Your task to perform on an android device: Clear the shopping cart on newegg.com. Add "amazon basics triple a" to the cart on newegg.com Image 0: 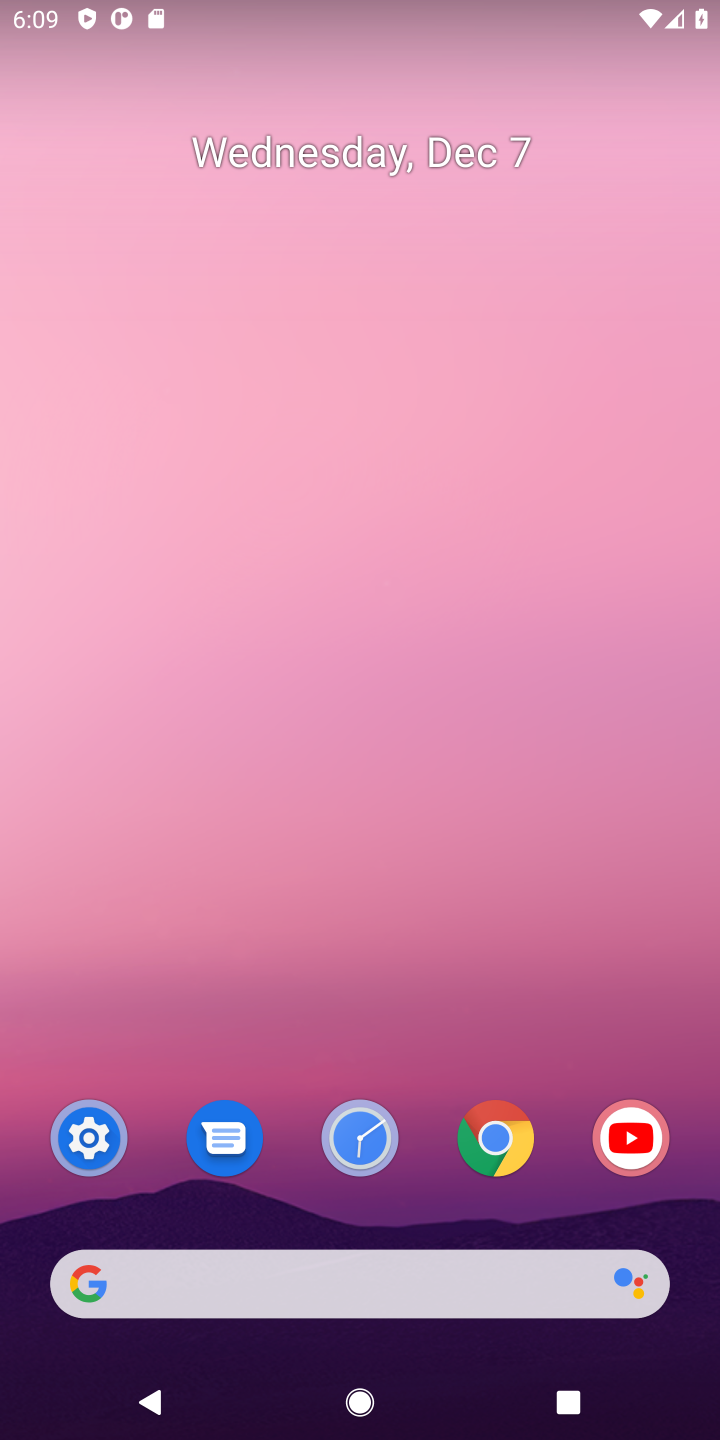
Step 0: press home button
Your task to perform on an android device: Clear the shopping cart on newegg.com. Add "amazon basics triple a" to the cart on newegg.com Image 1: 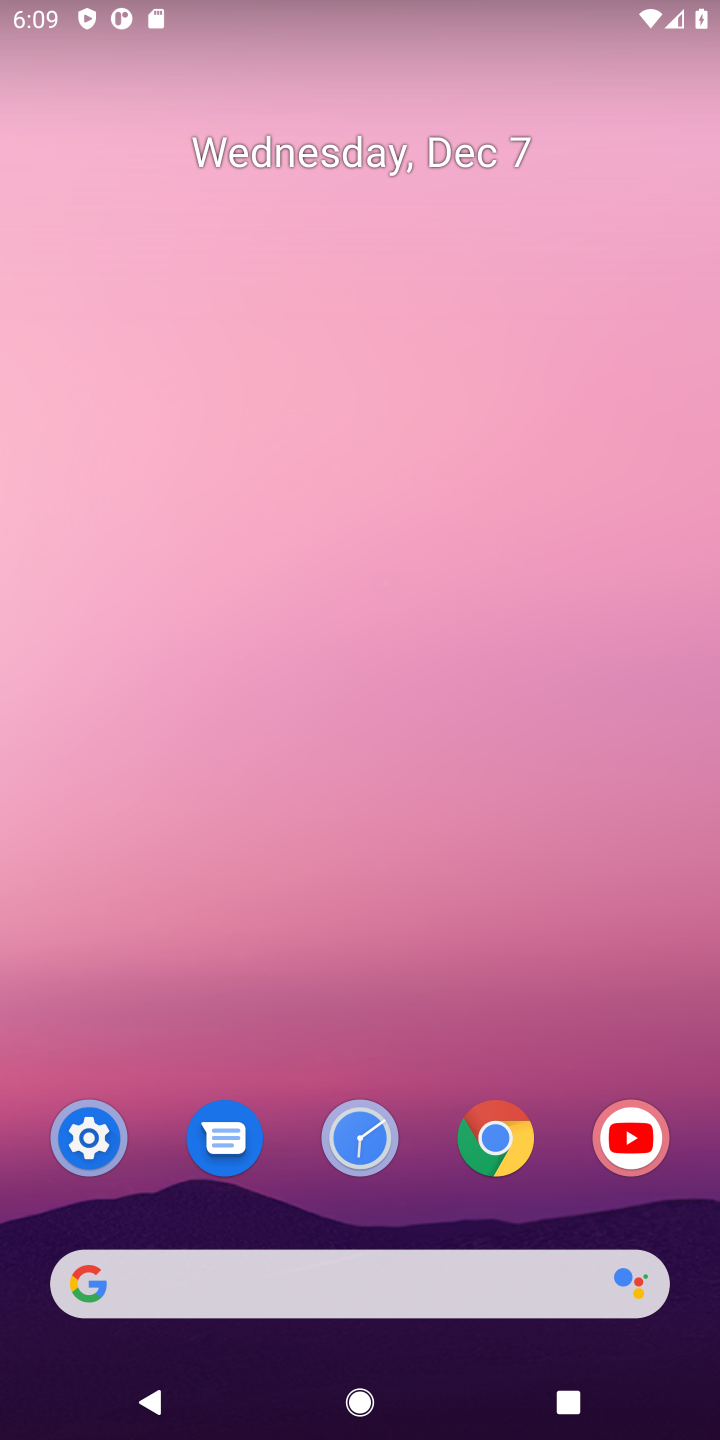
Step 1: click (150, 1288)
Your task to perform on an android device: Clear the shopping cart on newegg.com. Add "amazon basics triple a" to the cart on newegg.com Image 2: 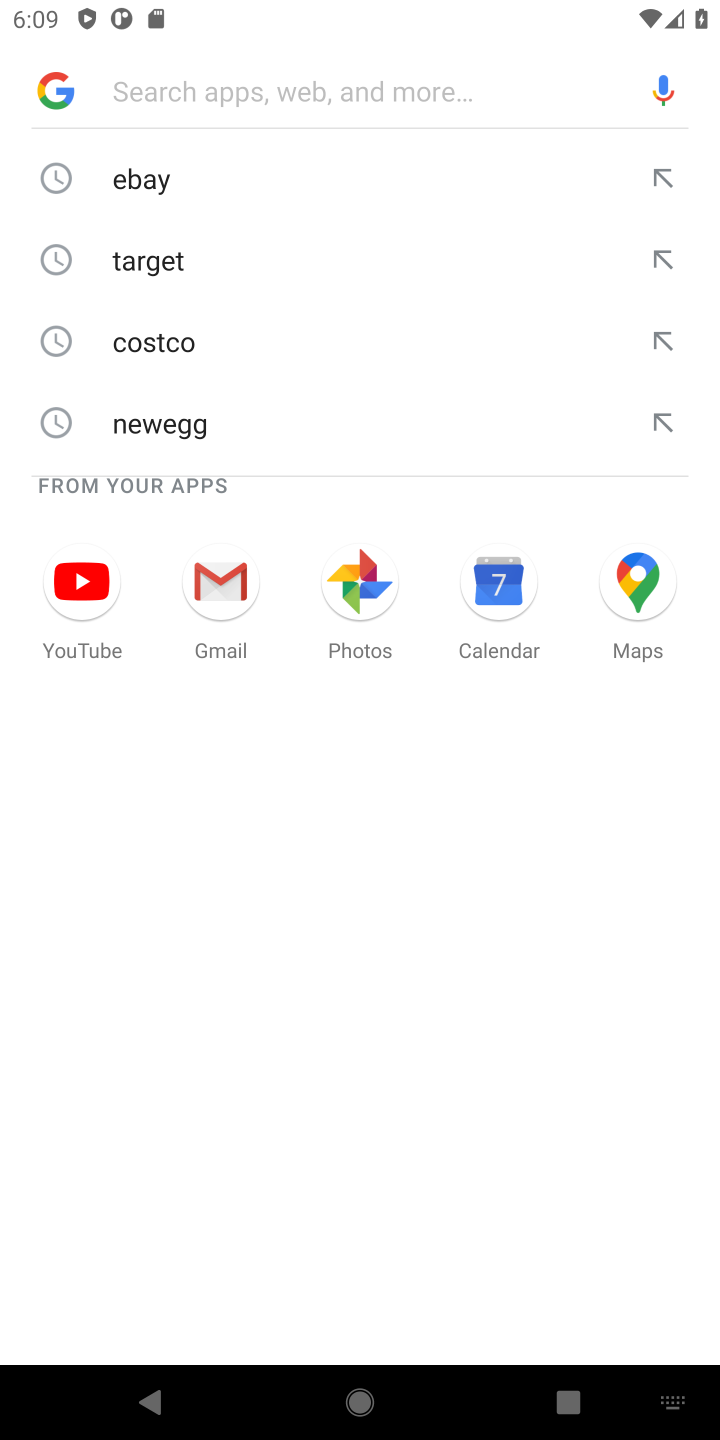
Step 2: type "newegg.com"
Your task to perform on an android device: Clear the shopping cart on newegg.com. Add "amazon basics triple a" to the cart on newegg.com Image 3: 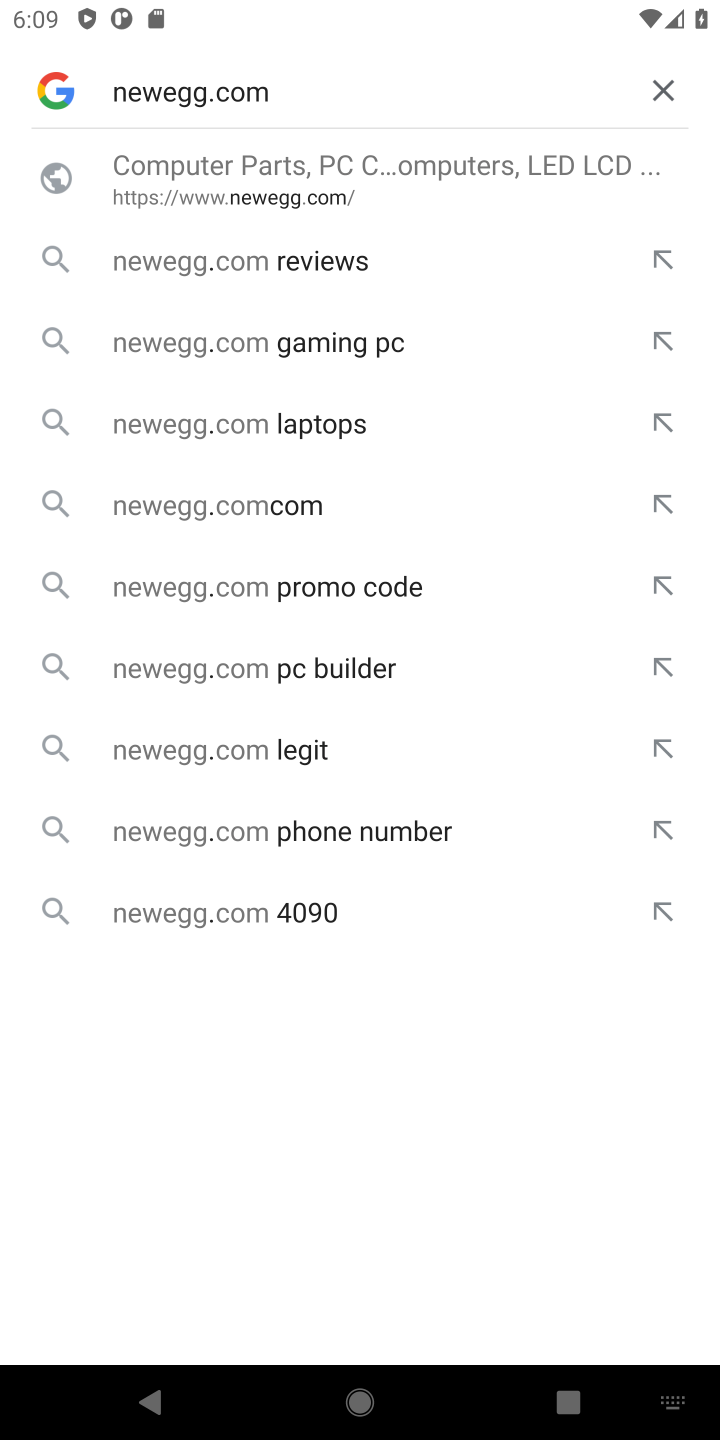
Step 3: press enter
Your task to perform on an android device: Clear the shopping cart on newegg.com. Add "amazon basics triple a" to the cart on newegg.com Image 4: 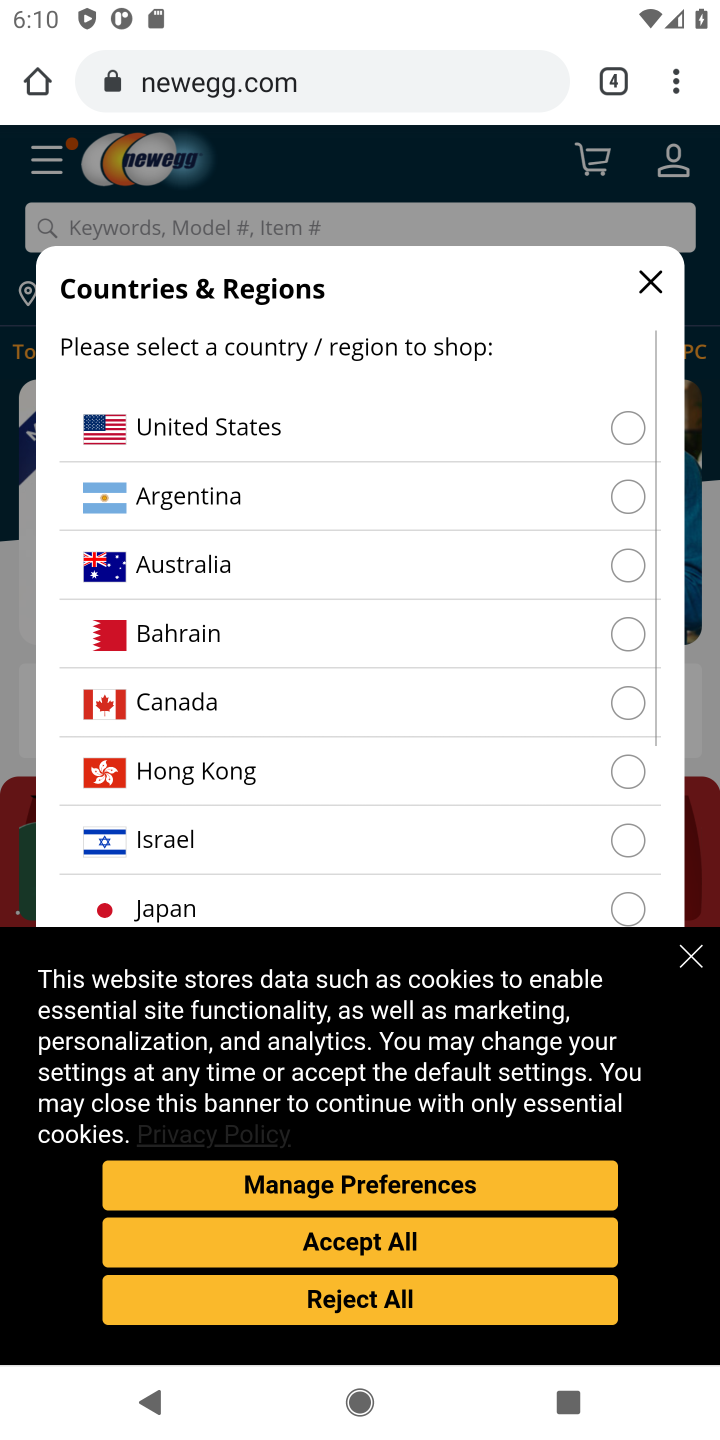
Step 4: click (423, 1245)
Your task to perform on an android device: Clear the shopping cart on newegg.com. Add "amazon basics triple a" to the cart on newegg.com Image 5: 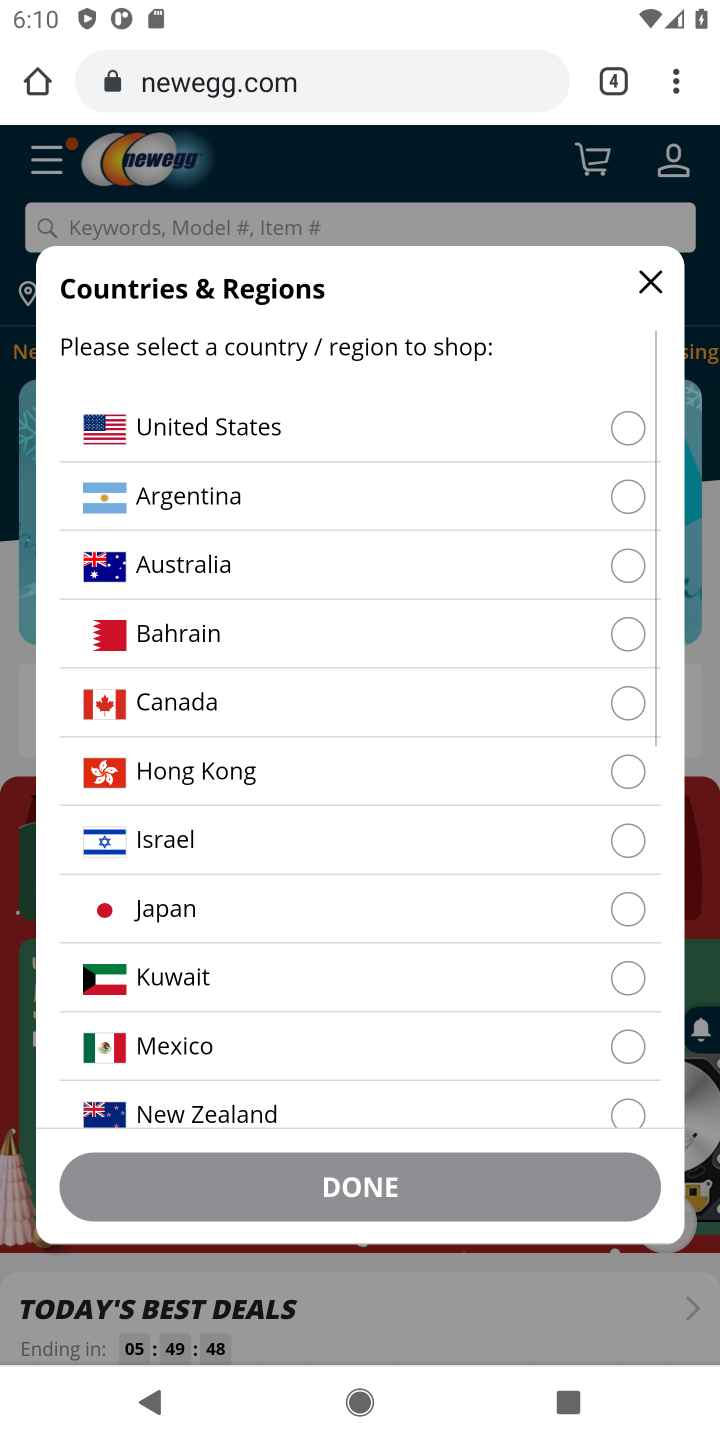
Step 5: click (644, 282)
Your task to perform on an android device: Clear the shopping cart on newegg.com. Add "amazon basics triple a" to the cart on newegg.com Image 6: 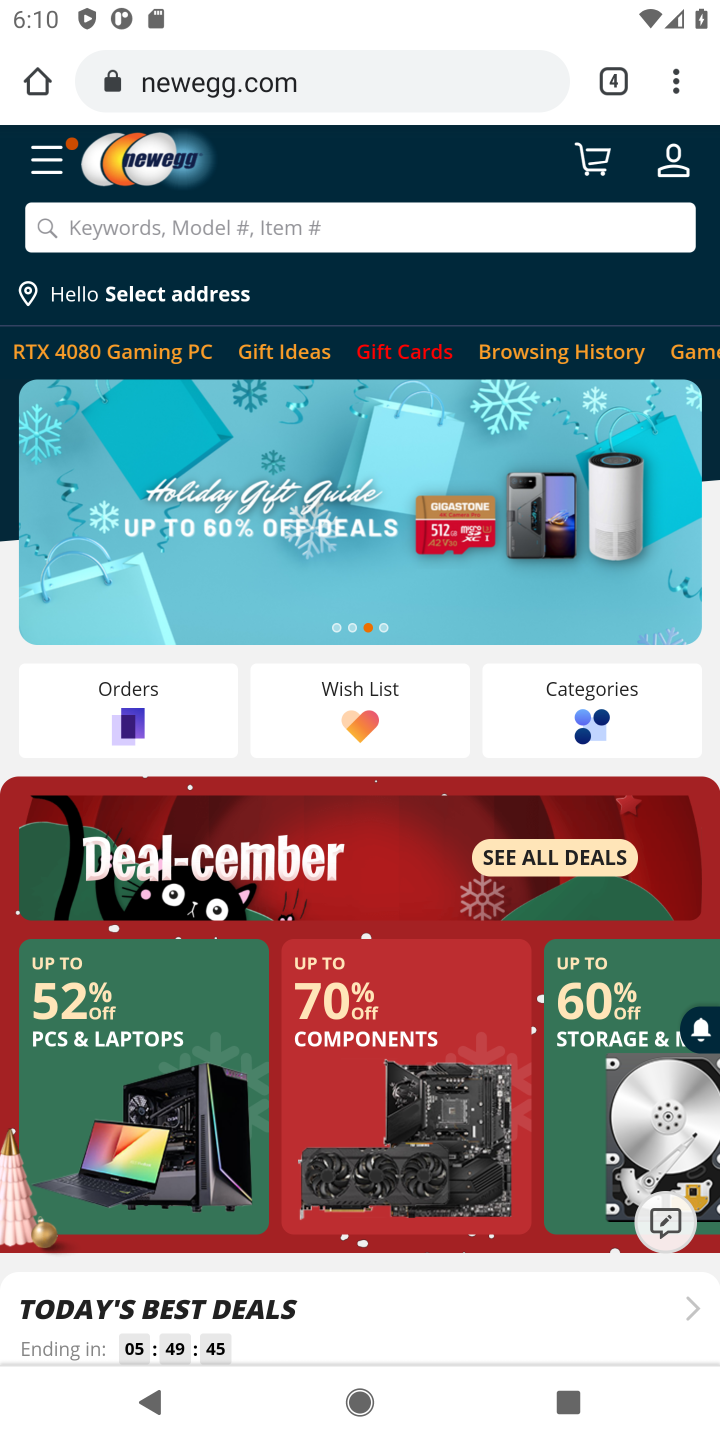
Step 6: click (594, 161)
Your task to perform on an android device: Clear the shopping cart on newegg.com. Add "amazon basics triple a" to the cart on newegg.com Image 7: 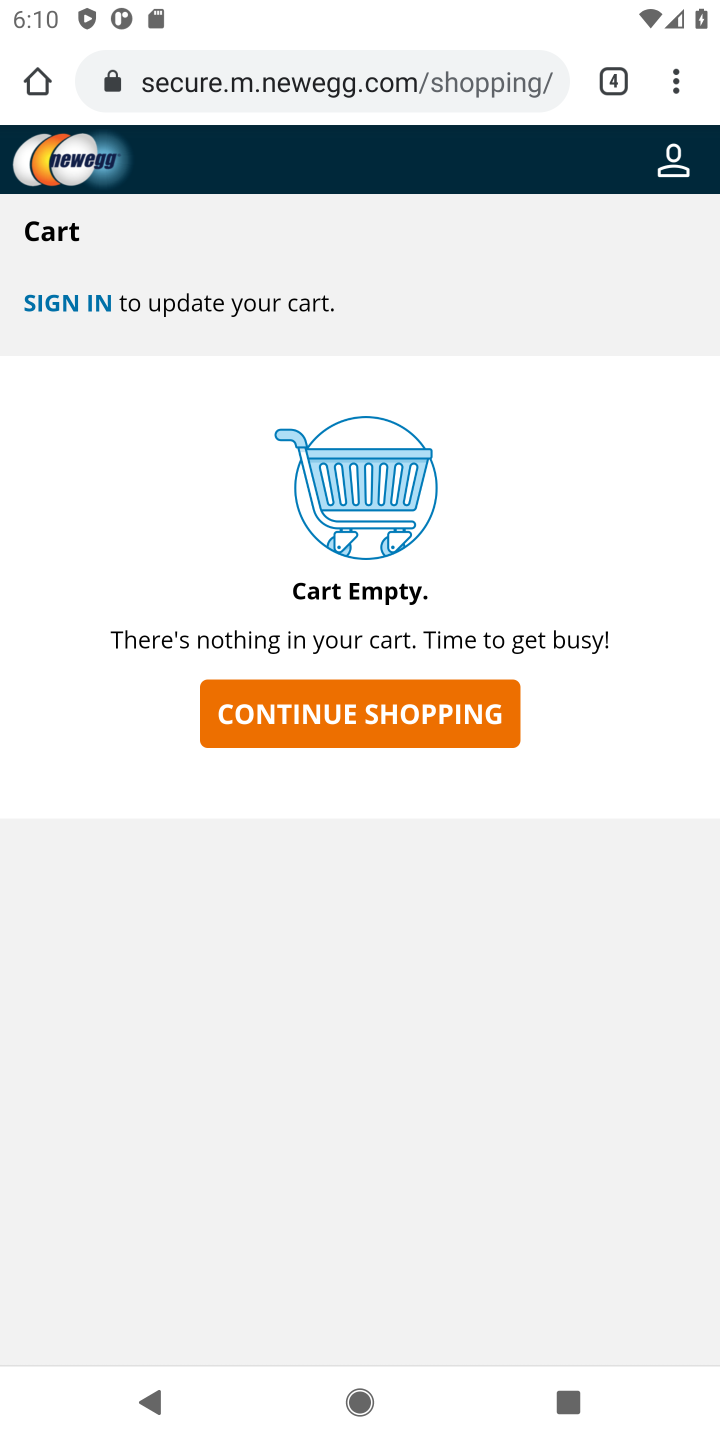
Step 7: press back button
Your task to perform on an android device: Clear the shopping cart on newegg.com. Add "amazon basics triple a" to the cart on newegg.com Image 8: 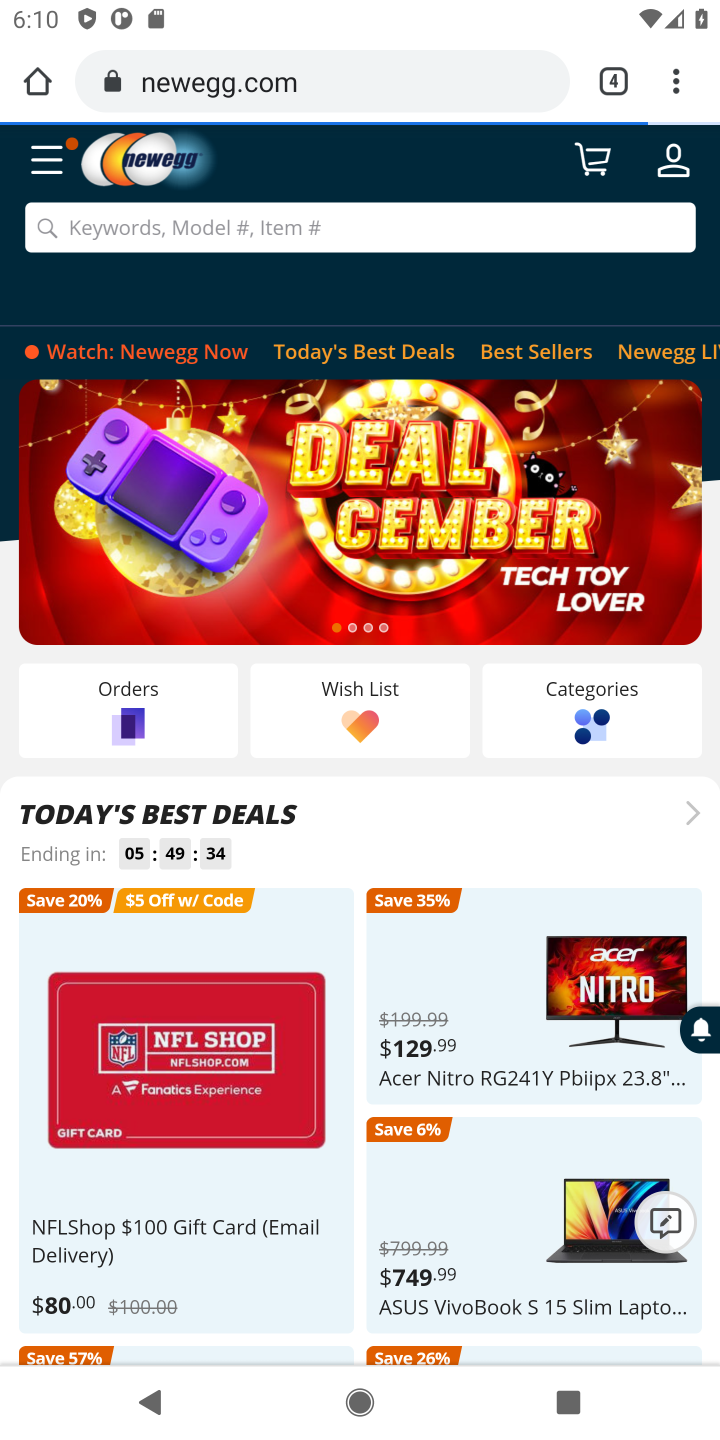
Step 8: click (254, 228)
Your task to perform on an android device: Clear the shopping cart on newegg.com. Add "amazon basics triple a" to the cart on newegg.com Image 9: 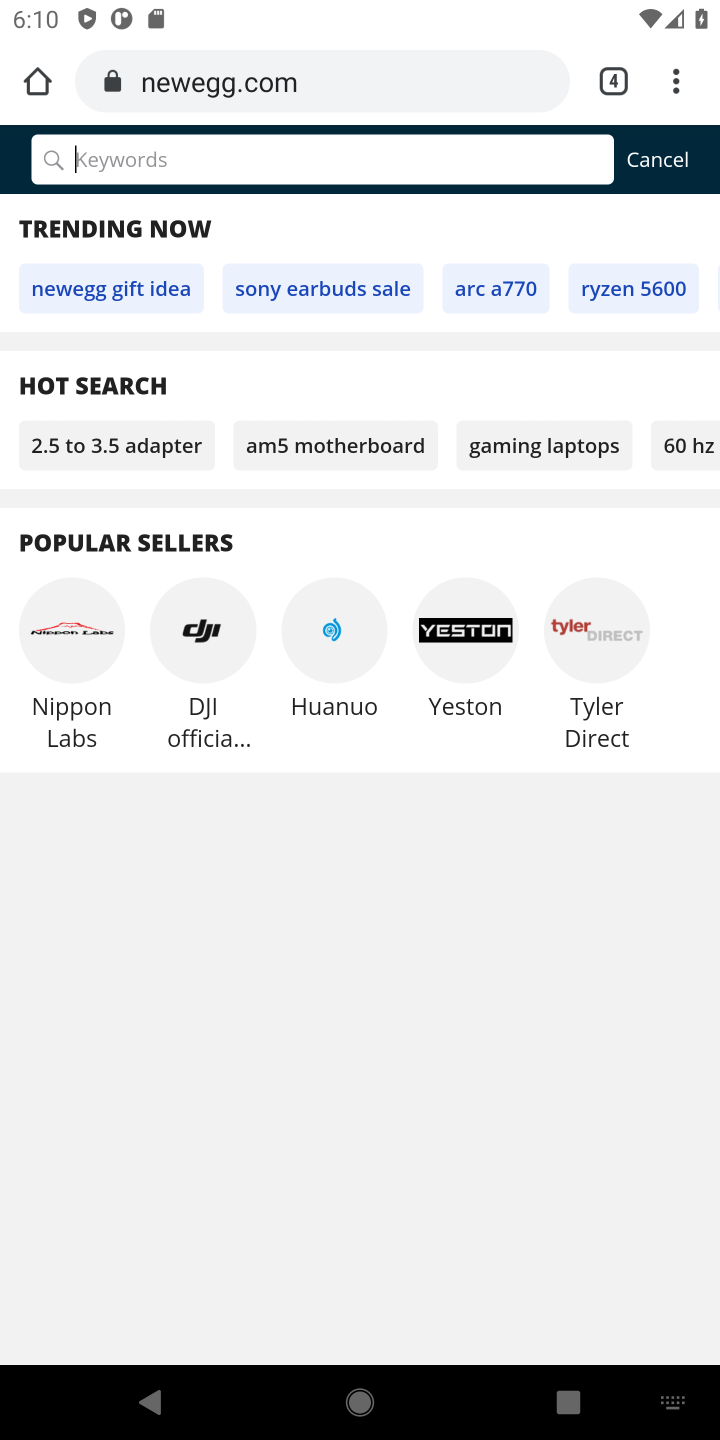
Step 9: type "amazon basics triple a"
Your task to perform on an android device: Clear the shopping cart on newegg.com. Add "amazon basics triple a" to the cart on newegg.com Image 10: 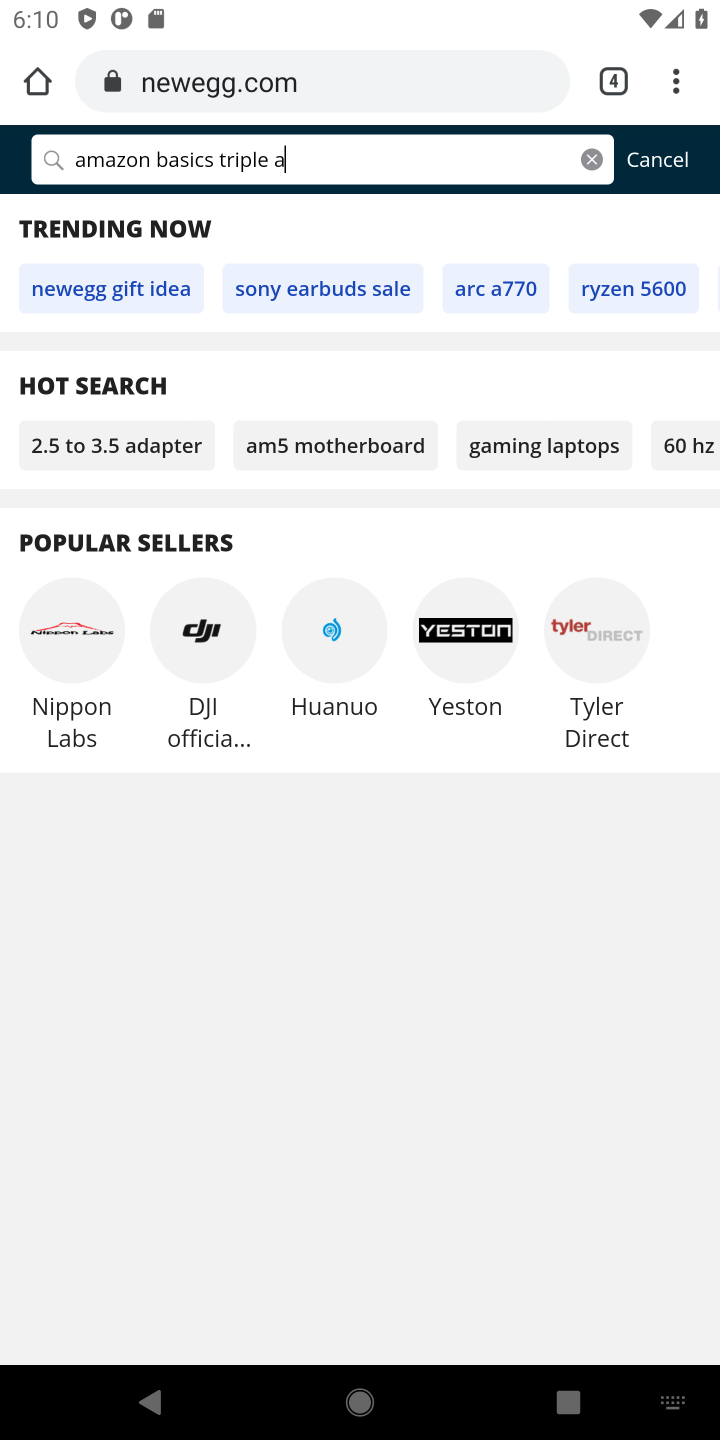
Step 10: press enter
Your task to perform on an android device: Clear the shopping cart on newegg.com. Add "amazon basics triple a" to the cart on newegg.com Image 11: 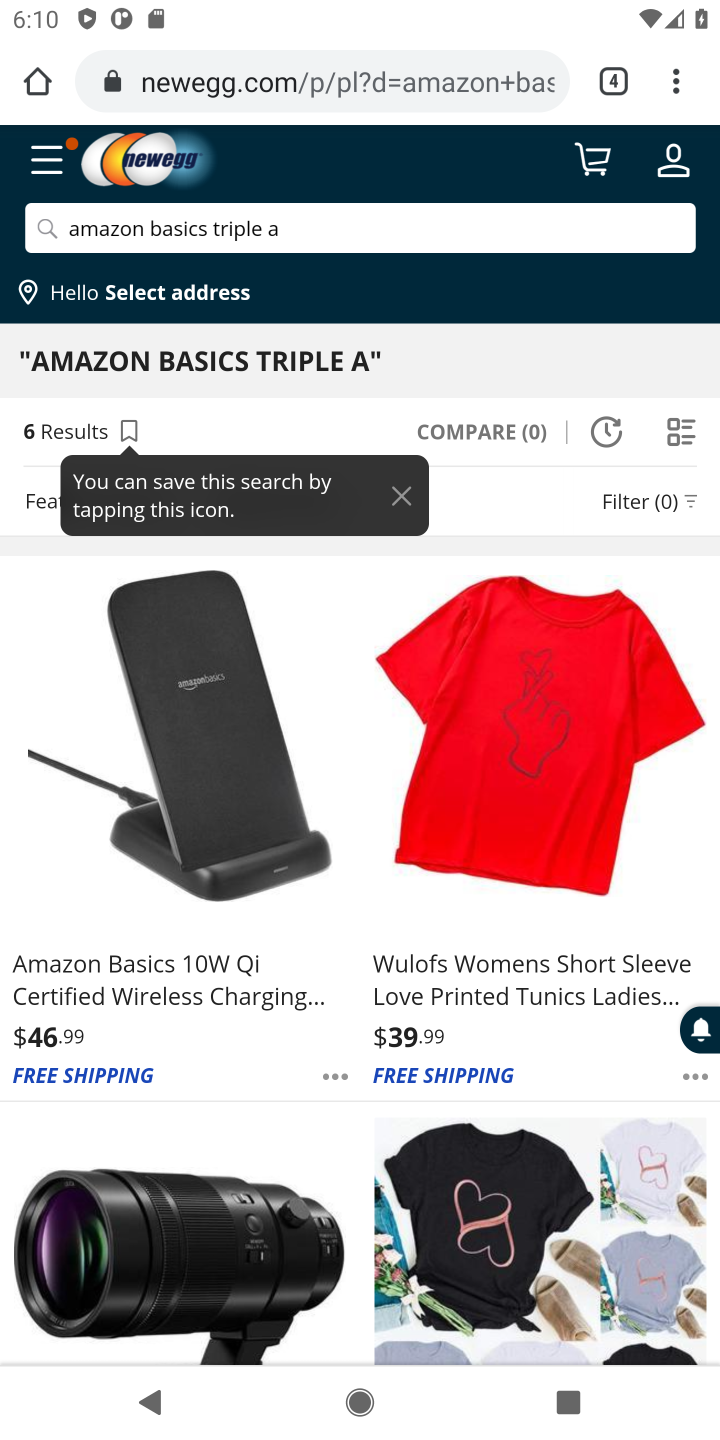
Step 11: drag from (489, 1093) to (513, 668)
Your task to perform on an android device: Clear the shopping cart on newegg.com. Add "amazon basics triple a" to the cart on newegg.com Image 12: 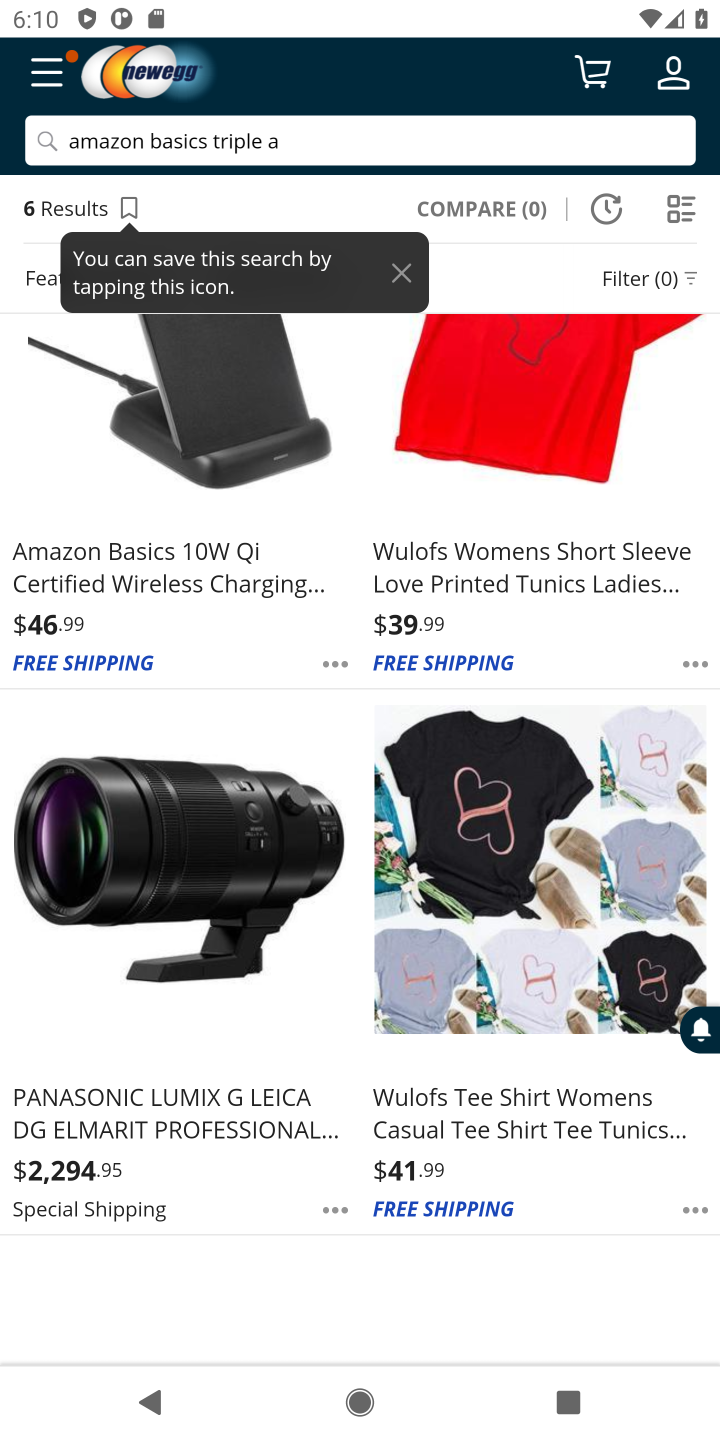
Step 12: drag from (398, 1181) to (436, 431)
Your task to perform on an android device: Clear the shopping cart on newegg.com. Add "amazon basics triple a" to the cart on newegg.com Image 13: 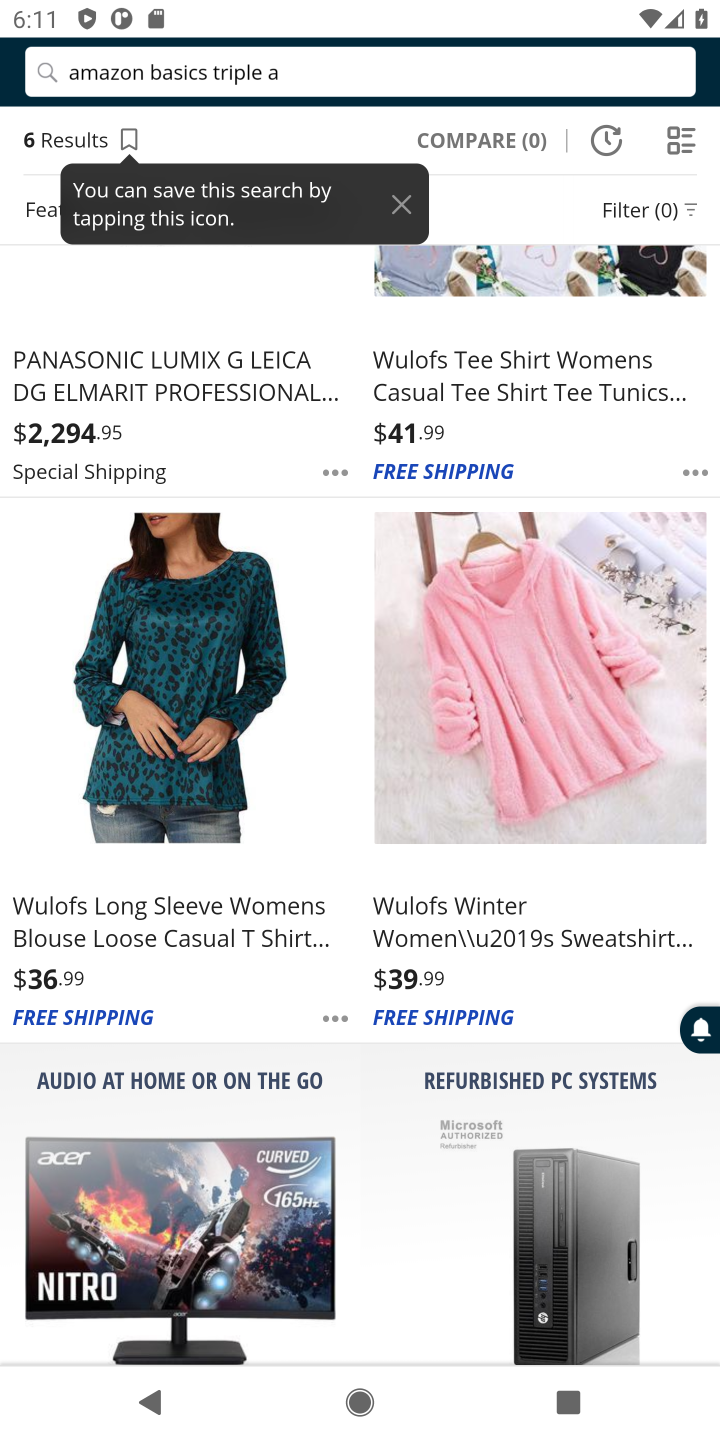
Step 13: drag from (410, 872) to (439, 639)
Your task to perform on an android device: Clear the shopping cart on newegg.com. Add "amazon basics triple a" to the cart on newegg.com Image 14: 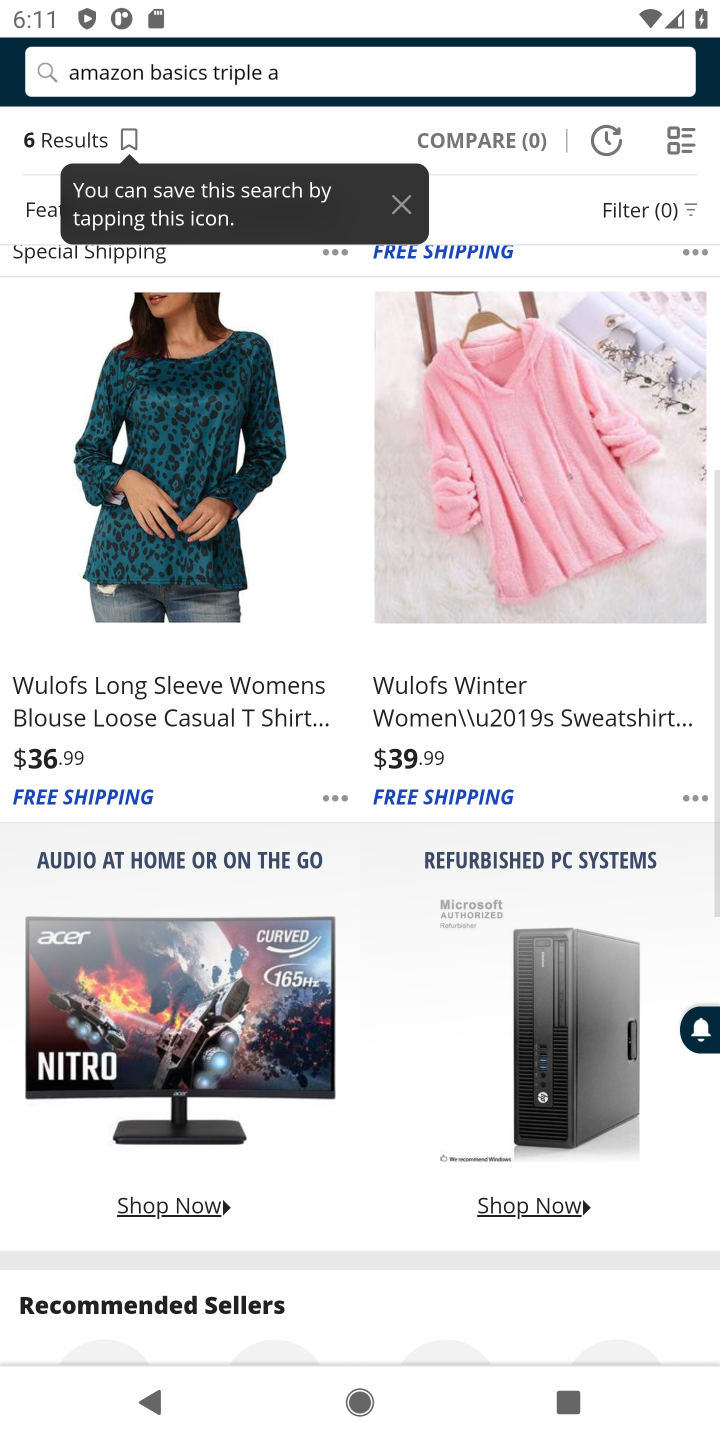
Step 14: click (381, 73)
Your task to perform on an android device: Clear the shopping cart on newegg.com. Add "amazon basics triple a" to the cart on newegg.com Image 15: 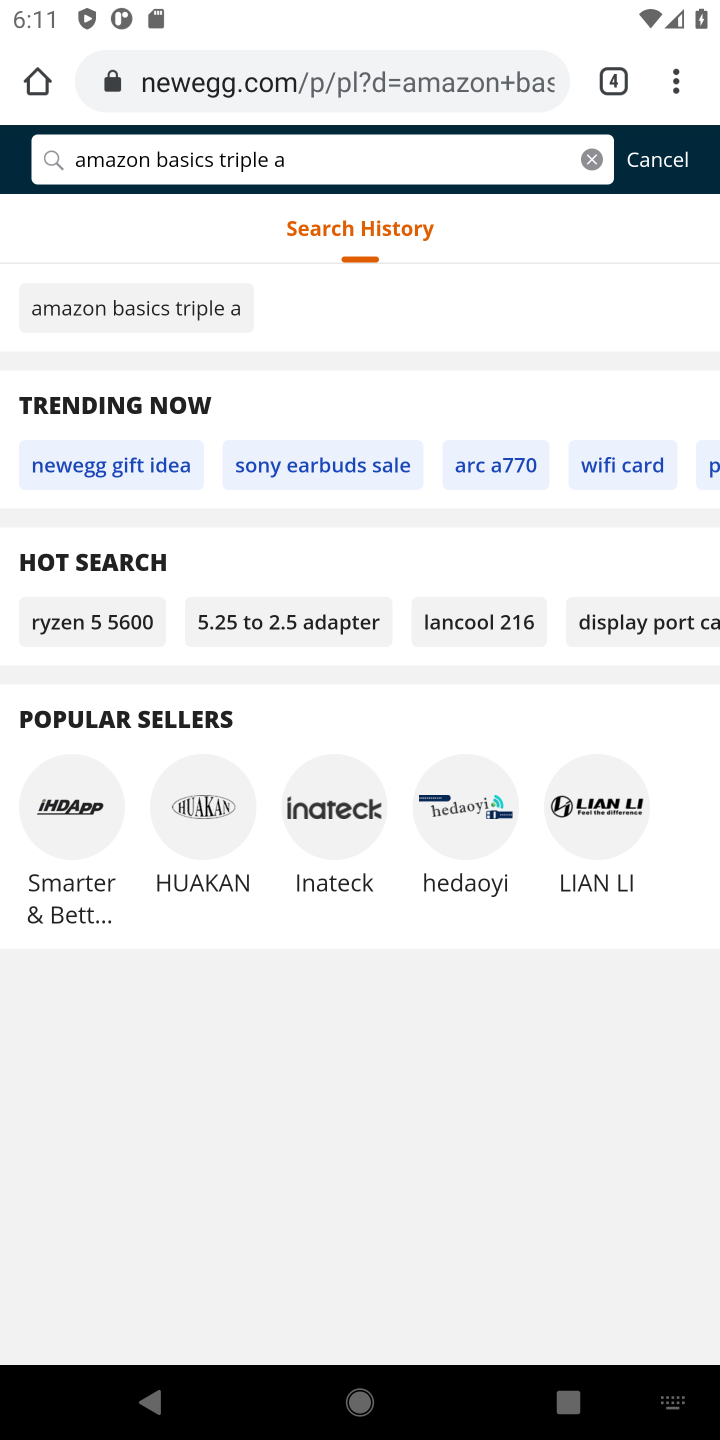
Step 15: task complete